Your task to perform on an android device: Go to eBay Image 0: 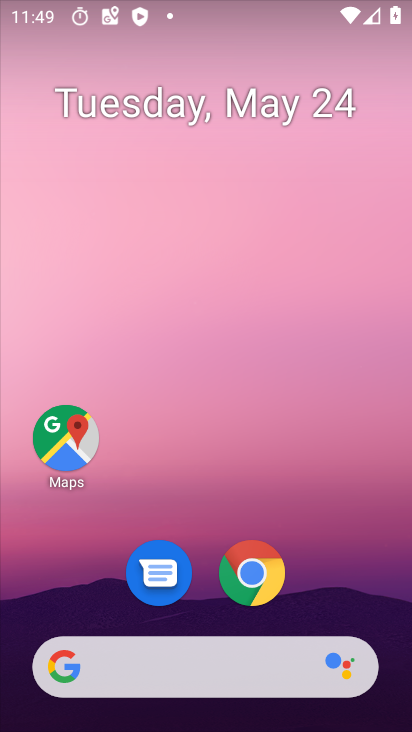
Step 0: drag from (329, 496) to (242, 6)
Your task to perform on an android device: Go to eBay Image 1: 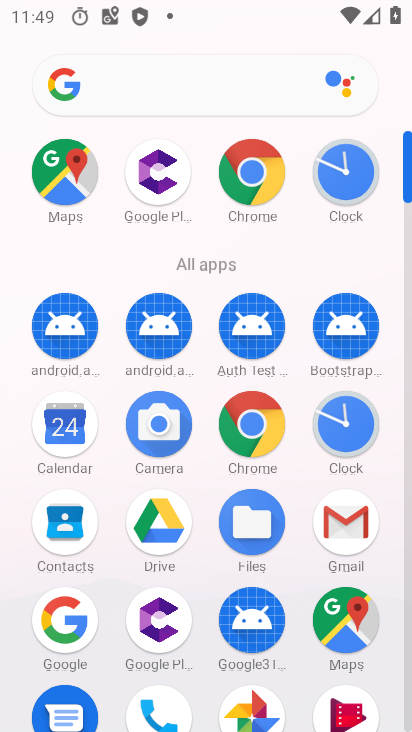
Step 1: drag from (13, 544) to (8, 260)
Your task to perform on an android device: Go to eBay Image 2: 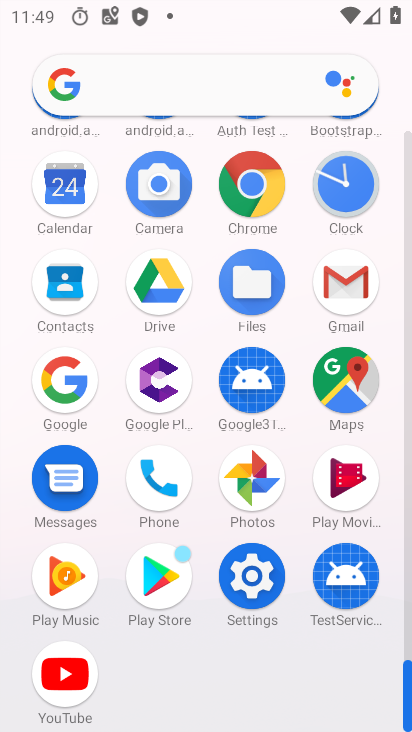
Step 2: click (254, 180)
Your task to perform on an android device: Go to eBay Image 3: 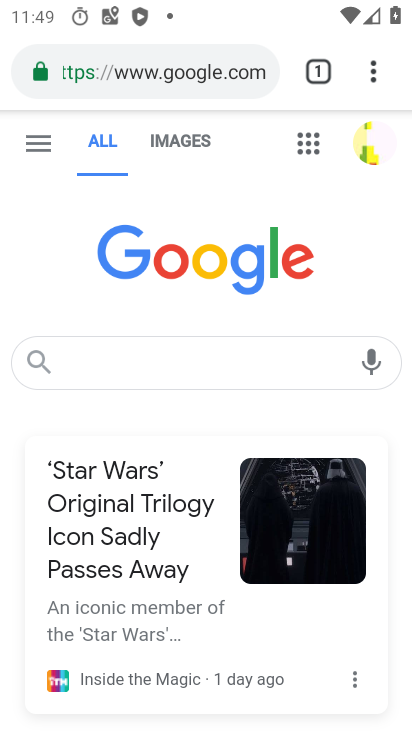
Step 3: click (188, 75)
Your task to perform on an android device: Go to eBay Image 4: 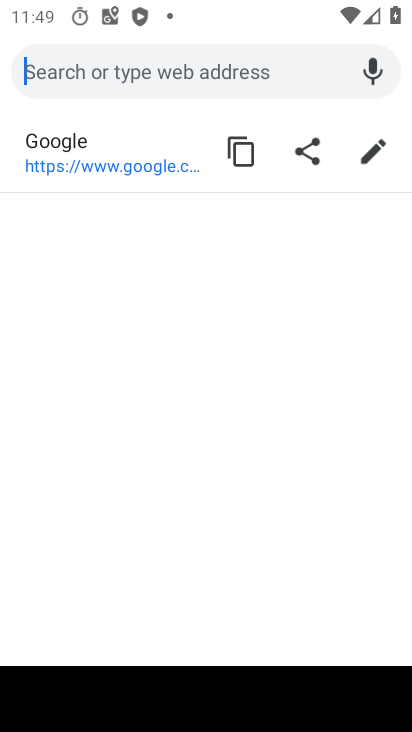
Step 4: type "eBay"
Your task to perform on an android device: Go to eBay Image 5: 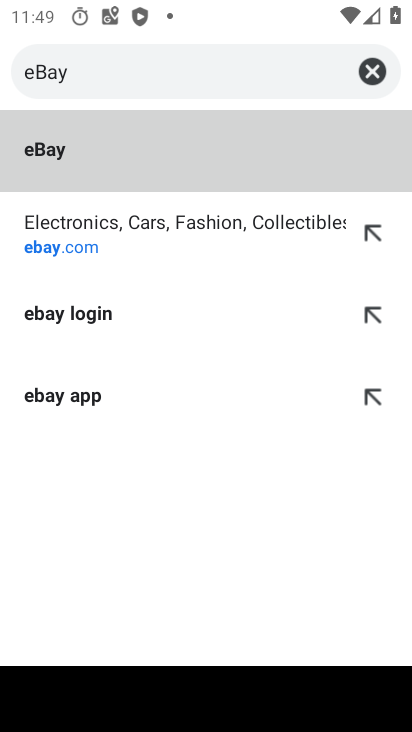
Step 5: click (66, 235)
Your task to perform on an android device: Go to eBay Image 6: 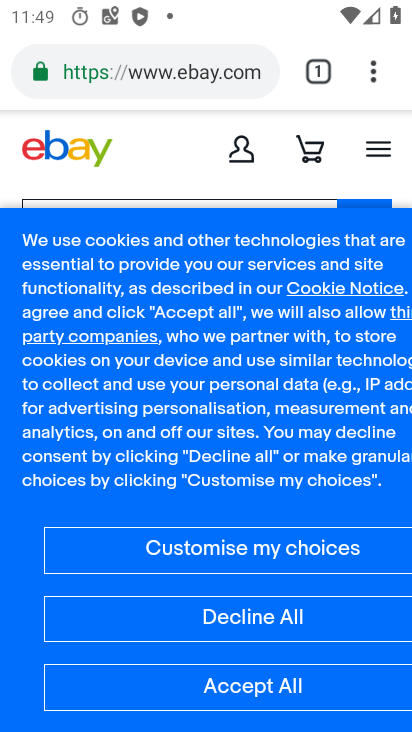
Step 6: click (253, 689)
Your task to perform on an android device: Go to eBay Image 7: 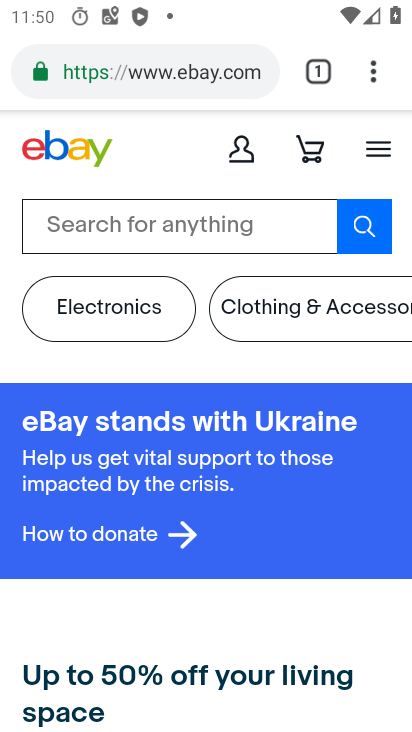
Step 7: task complete